Your task to perform on an android device: Show me popular videos on Youtube Image 0: 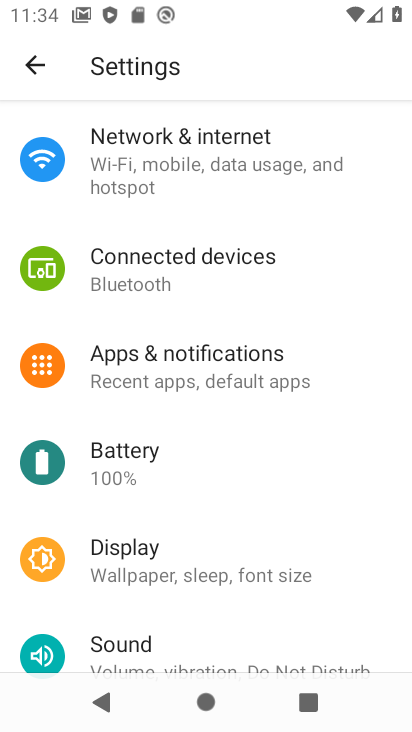
Step 0: press home button
Your task to perform on an android device: Show me popular videos on Youtube Image 1: 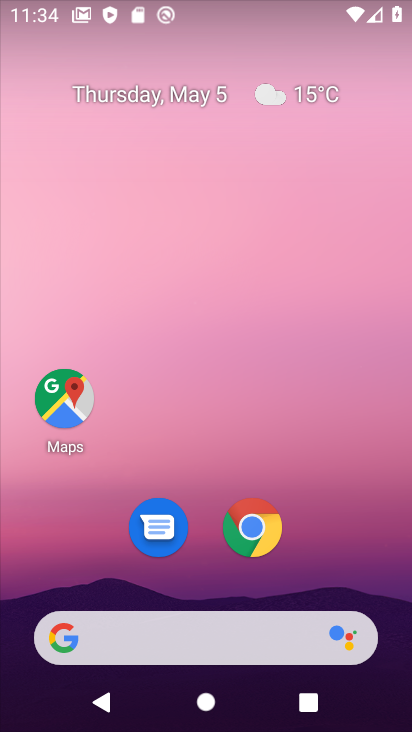
Step 1: drag from (144, 608) to (234, 32)
Your task to perform on an android device: Show me popular videos on Youtube Image 2: 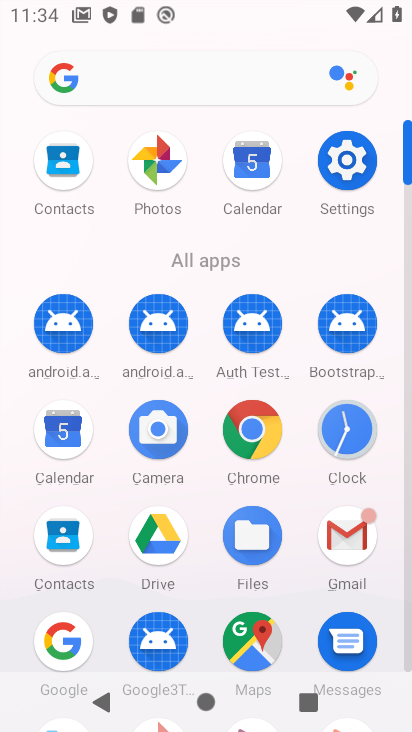
Step 2: drag from (140, 609) to (225, 292)
Your task to perform on an android device: Show me popular videos on Youtube Image 3: 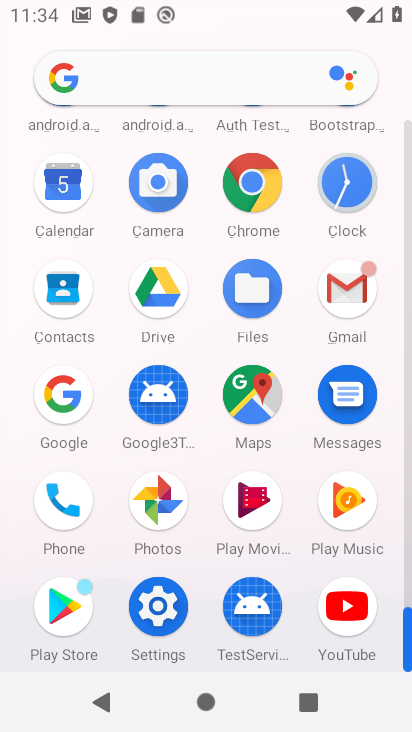
Step 3: click (333, 608)
Your task to perform on an android device: Show me popular videos on Youtube Image 4: 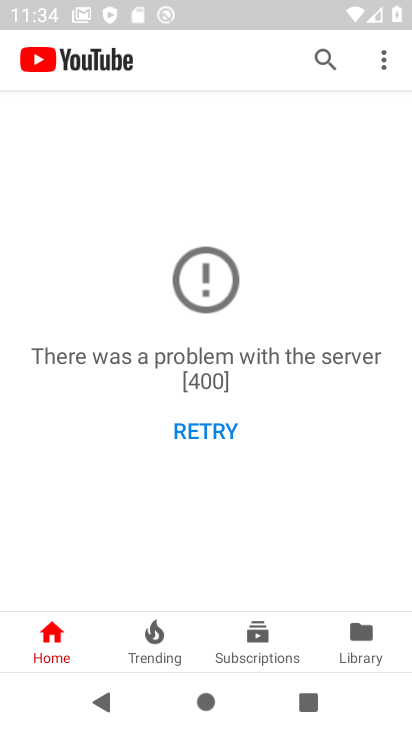
Step 4: click (164, 637)
Your task to perform on an android device: Show me popular videos on Youtube Image 5: 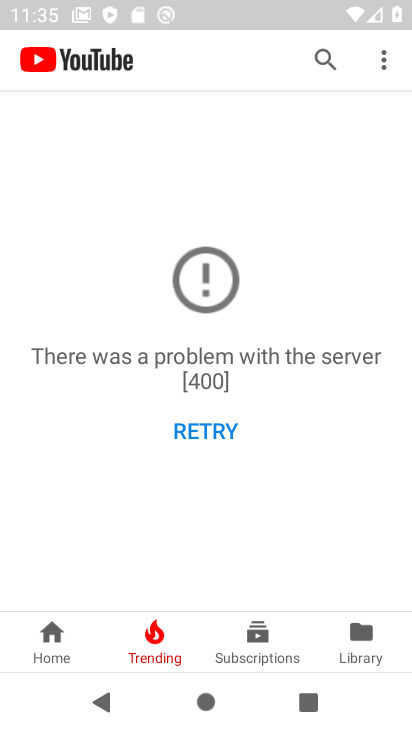
Step 5: click (136, 648)
Your task to perform on an android device: Show me popular videos on Youtube Image 6: 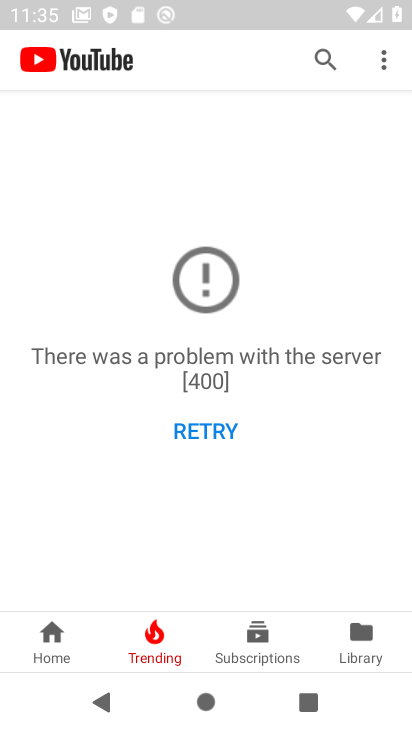
Step 6: task complete